Your task to perform on an android device: turn off notifications settings in the gmail app Image 0: 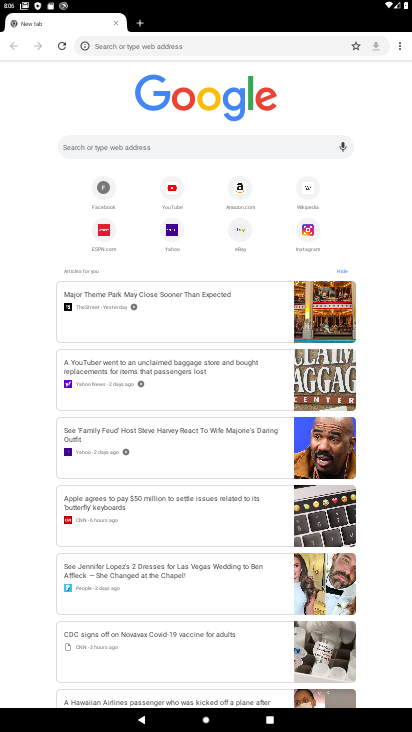
Step 0: press home button
Your task to perform on an android device: turn off notifications settings in the gmail app Image 1: 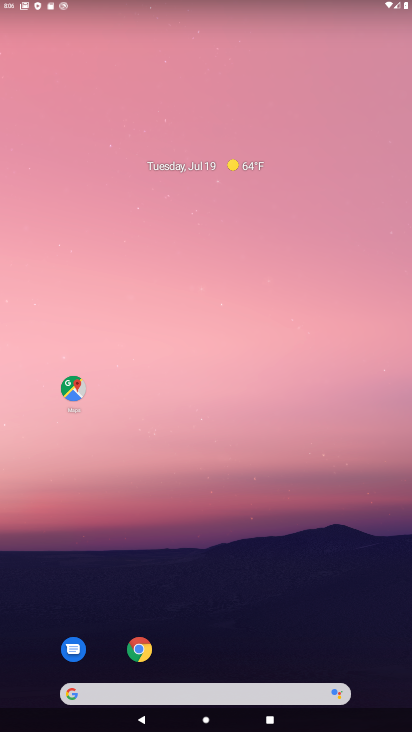
Step 1: drag from (196, 585) to (187, 149)
Your task to perform on an android device: turn off notifications settings in the gmail app Image 2: 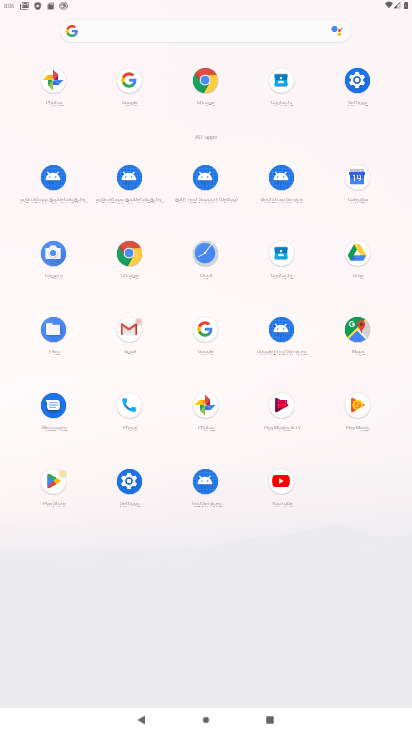
Step 2: click (117, 346)
Your task to perform on an android device: turn off notifications settings in the gmail app Image 3: 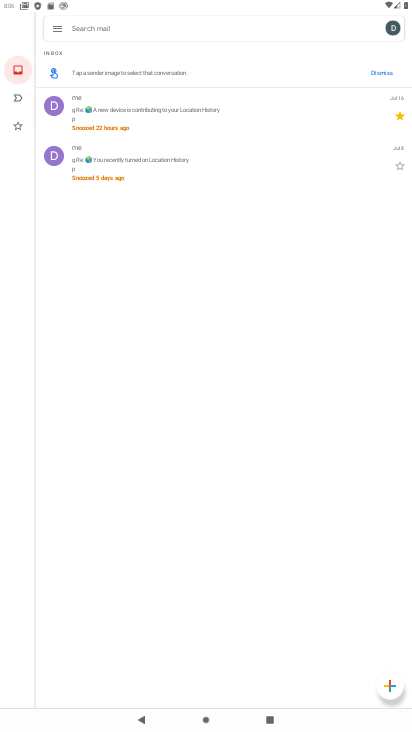
Step 3: click (52, 29)
Your task to perform on an android device: turn off notifications settings in the gmail app Image 4: 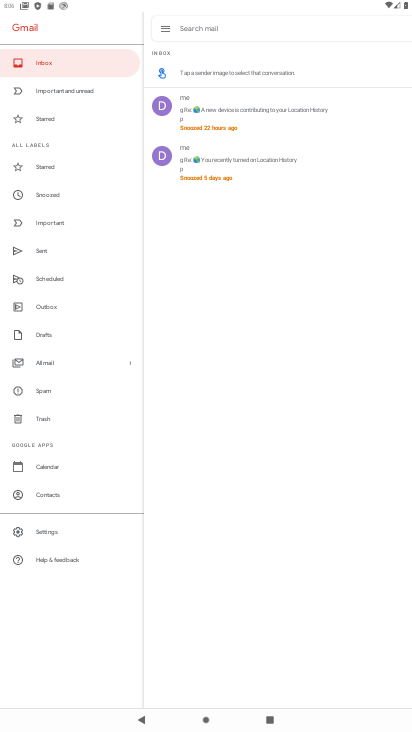
Step 4: click (53, 534)
Your task to perform on an android device: turn off notifications settings in the gmail app Image 5: 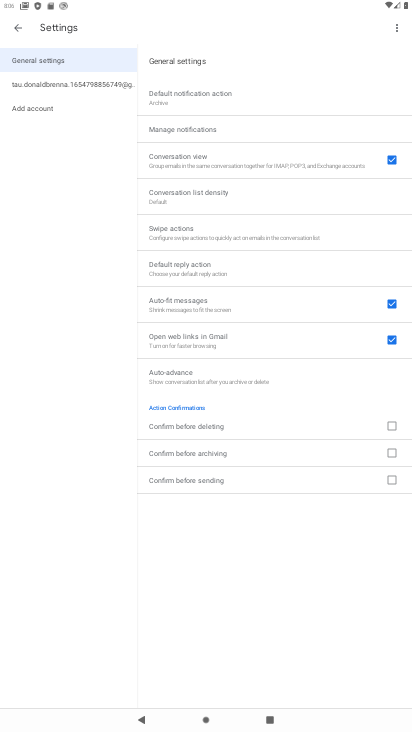
Step 5: click (70, 85)
Your task to perform on an android device: turn off notifications settings in the gmail app Image 6: 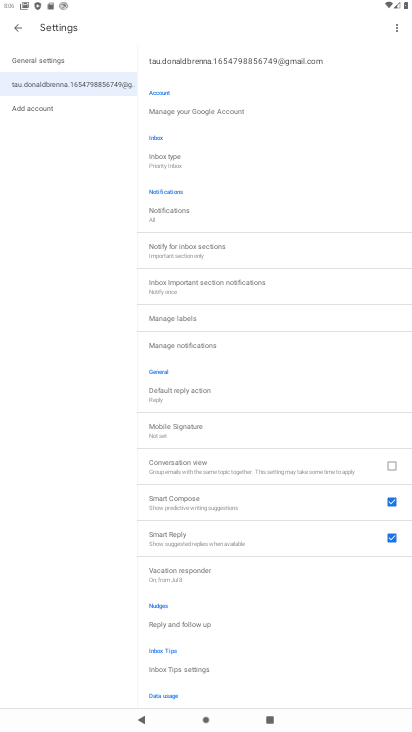
Step 6: click (216, 348)
Your task to perform on an android device: turn off notifications settings in the gmail app Image 7: 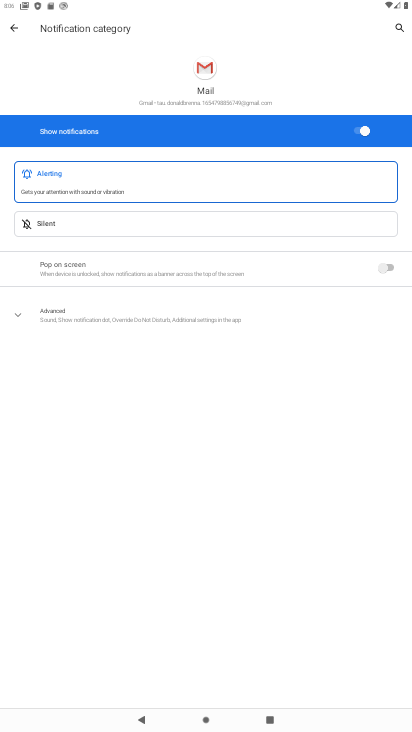
Step 7: click (353, 121)
Your task to perform on an android device: turn off notifications settings in the gmail app Image 8: 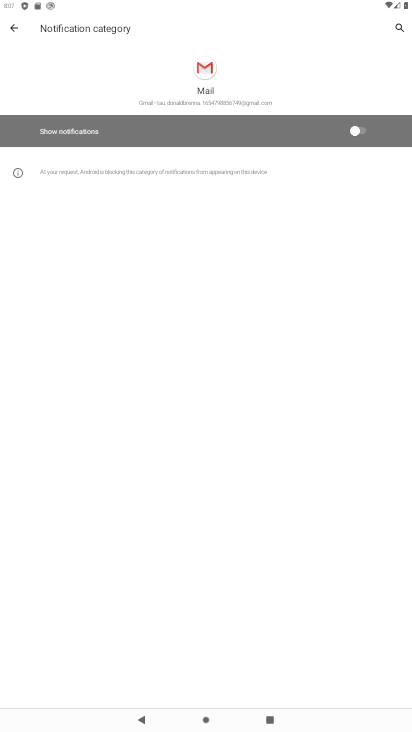
Step 8: task complete